Your task to perform on an android device: Turn on the flashlight Image 0: 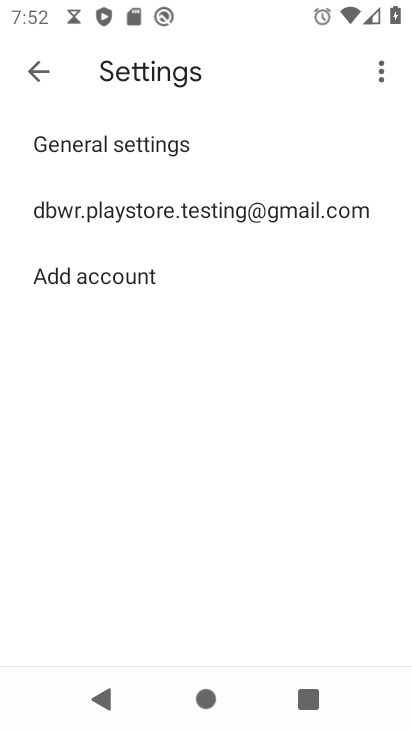
Step 0: press home button
Your task to perform on an android device: Turn on the flashlight Image 1: 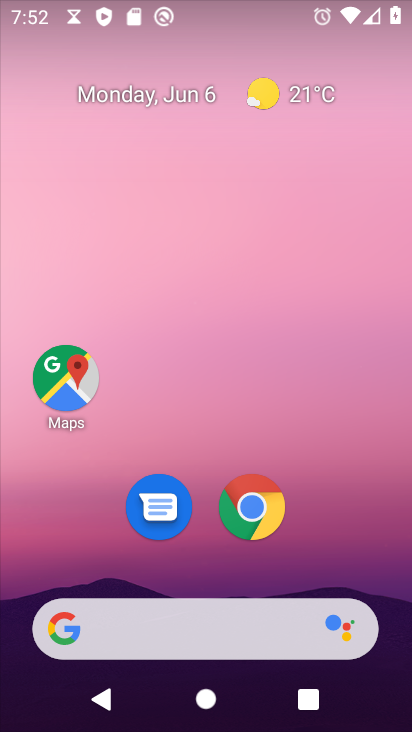
Step 1: drag from (186, 573) to (217, 11)
Your task to perform on an android device: Turn on the flashlight Image 2: 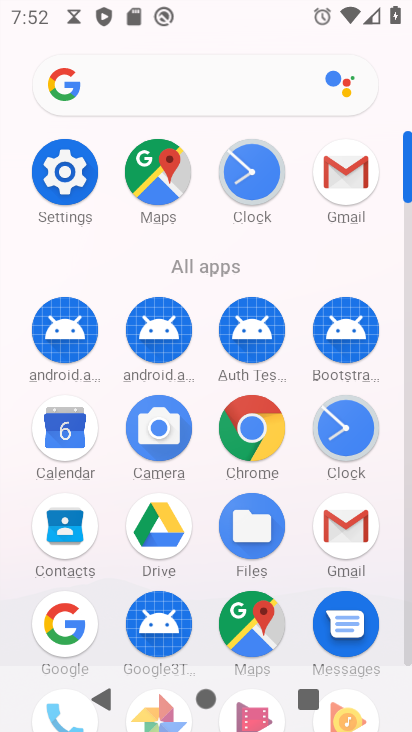
Step 2: click (70, 177)
Your task to perform on an android device: Turn on the flashlight Image 3: 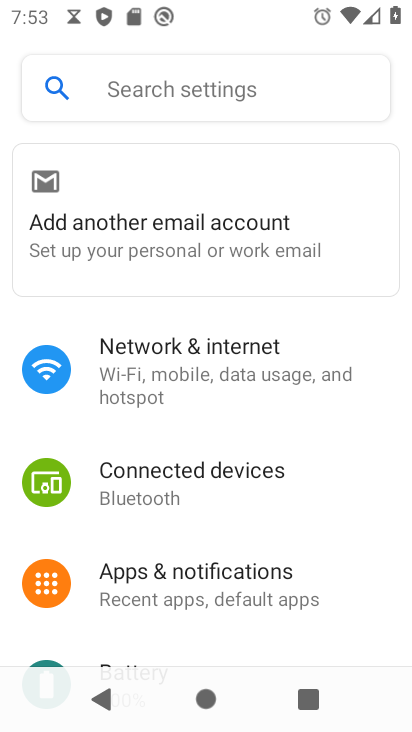
Step 3: task complete